Your task to perform on an android device: turn on priority inbox in the gmail app Image 0: 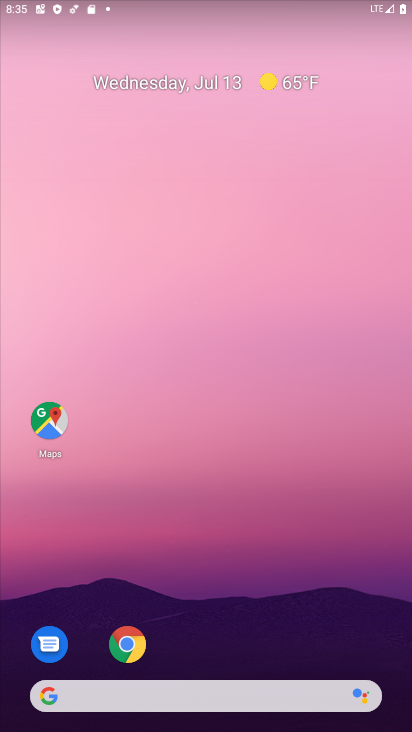
Step 0: drag from (295, 652) to (124, 26)
Your task to perform on an android device: turn on priority inbox in the gmail app Image 1: 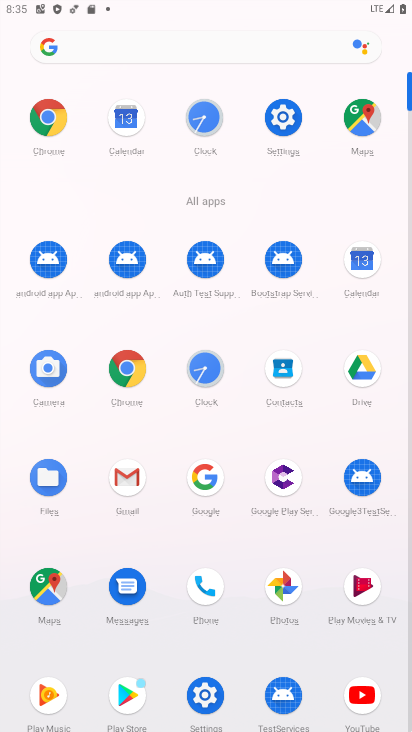
Step 1: click (128, 489)
Your task to perform on an android device: turn on priority inbox in the gmail app Image 2: 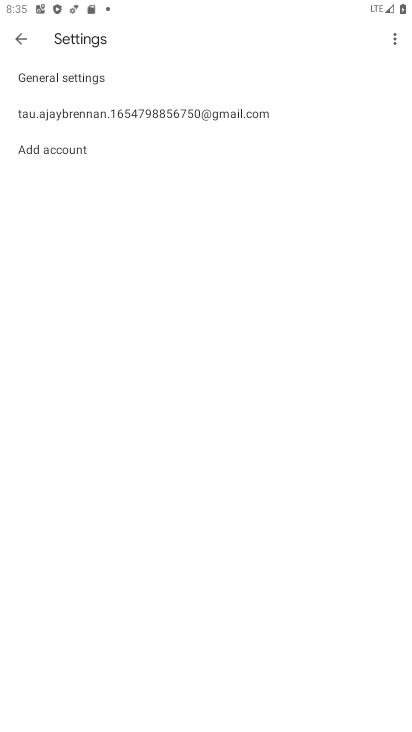
Step 2: click (52, 104)
Your task to perform on an android device: turn on priority inbox in the gmail app Image 3: 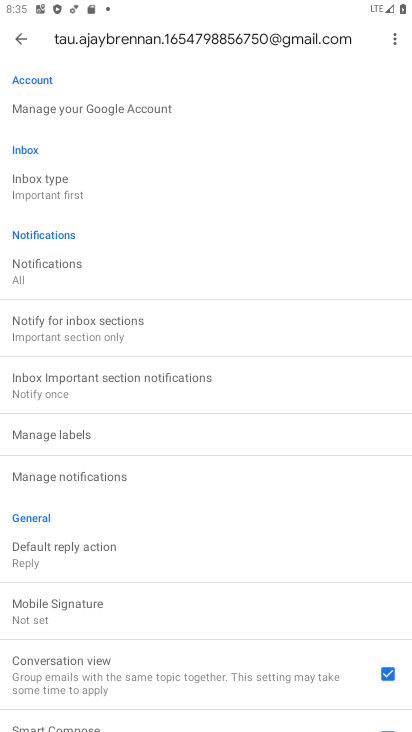
Step 3: click (47, 184)
Your task to perform on an android device: turn on priority inbox in the gmail app Image 4: 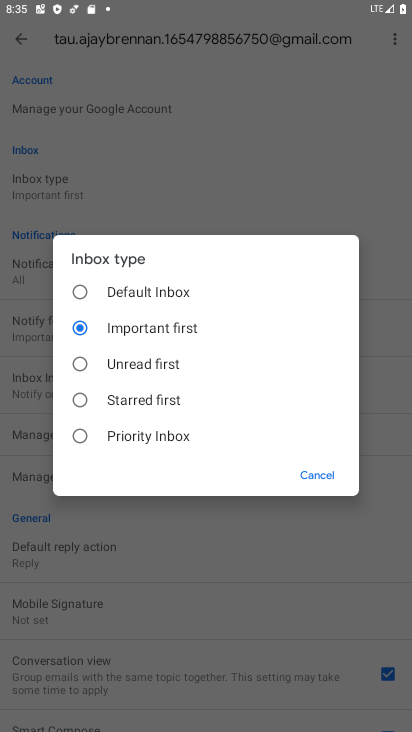
Step 4: click (170, 434)
Your task to perform on an android device: turn on priority inbox in the gmail app Image 5: 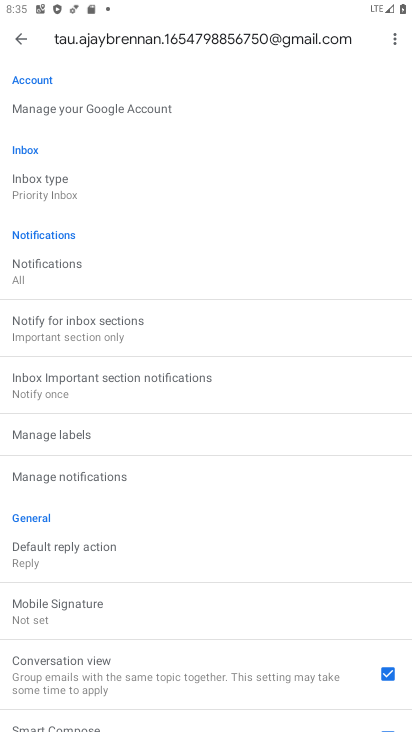
Step 5: task complete